Your task to perform on an android device: empty trash in google photos Image 0: 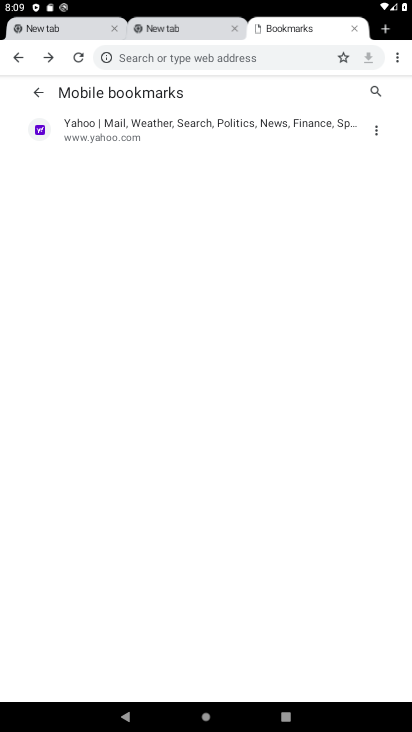
Step 0: press home button
Your task to perform on an android device: empty trash in google photos Image 1: 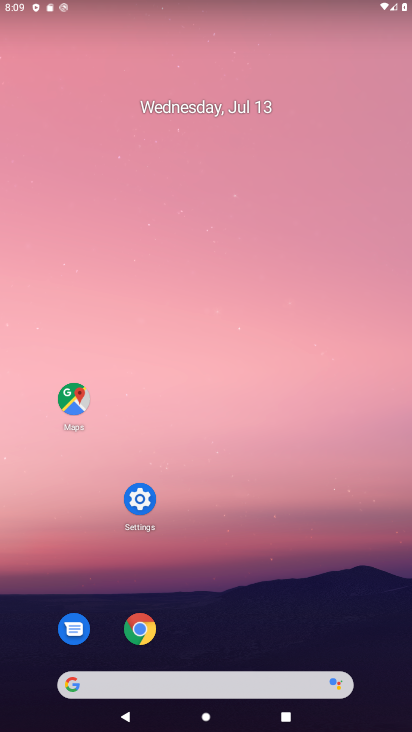
Step 1: drag from (392, 695) to (268, 51)
Your task to perform on an android device: empty trash in google photos Image 2: 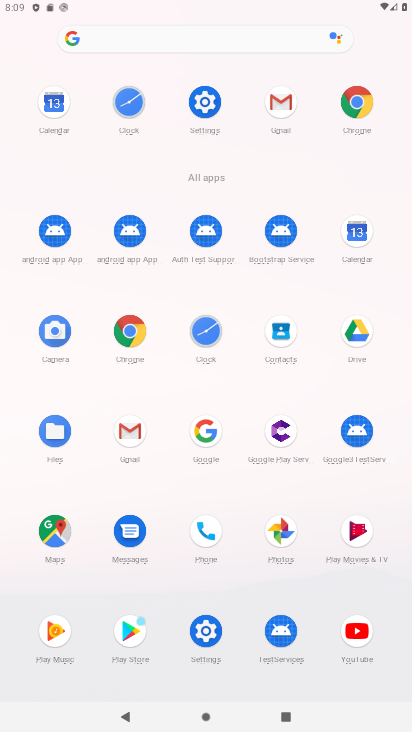
Step 2: click (272, 530)
Your task to perform on an android device: empty trash in google photos Image 3: 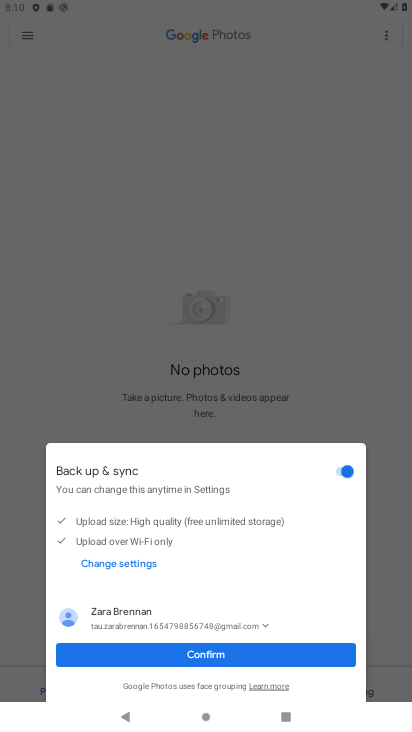
Step 3: press home button
Your task to perform on an android device: empty trash in google photos Image 4: 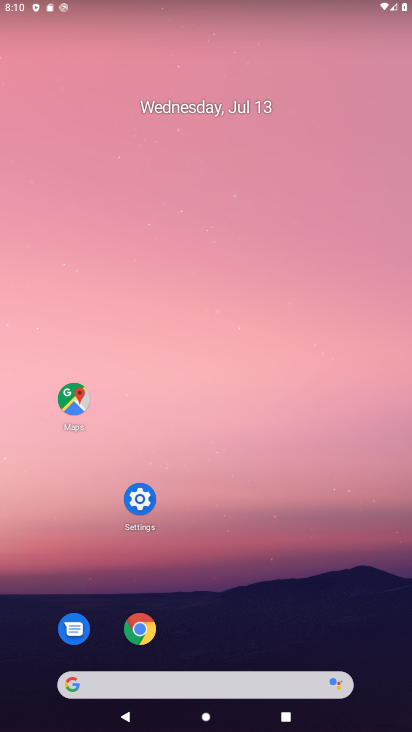
Step 4: drag from (385, 625) to (231, 77)
Your task to perform on an android device: empty trash in google photos Image 5: 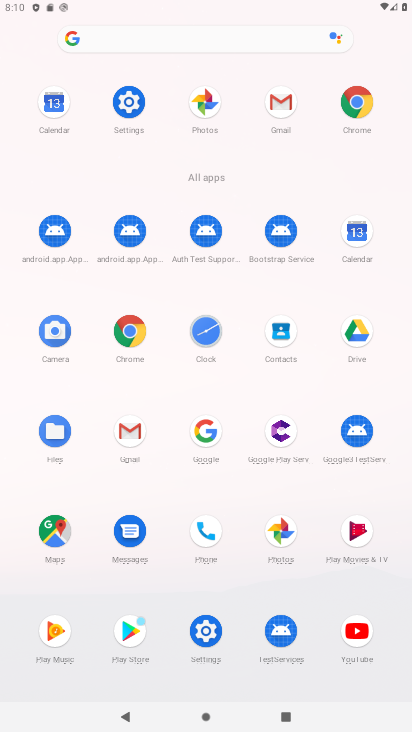
Step 5: drag from (279, 523) to (218, 375)
Your task to perform on an android device: empty trash in google photos Image 6: 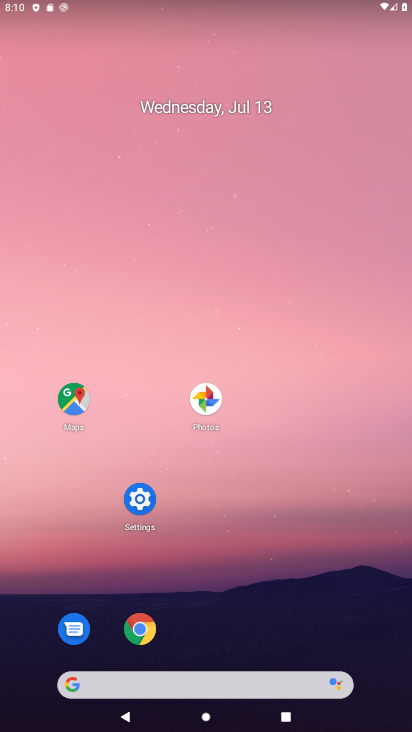
Step 6: click (201, 385)
Your task to perform on an android device: empty trash in google photos Image 7: 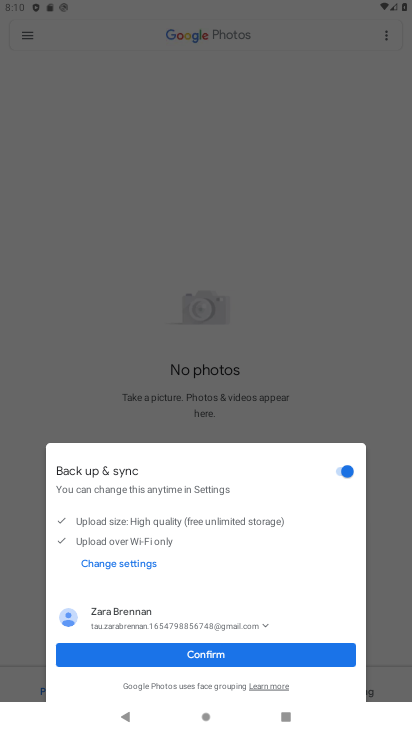
Step 7: click (222, 652)
Your task to perform on an android device: empty trash in google photos Image 8: 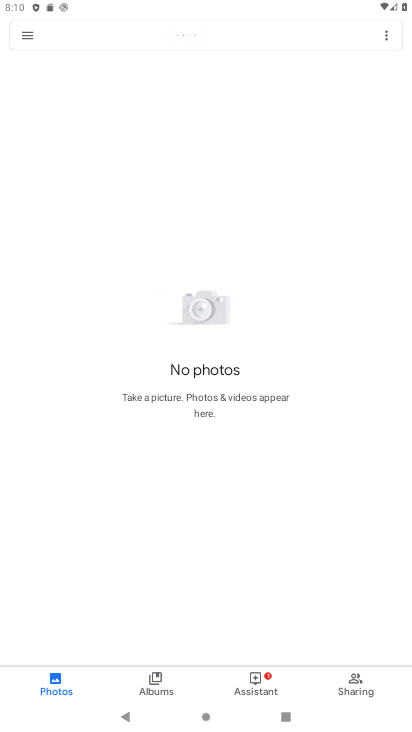
Step 8: click (28, 31)
Your task to perform on an android device: empty trash in google photos Image 9: 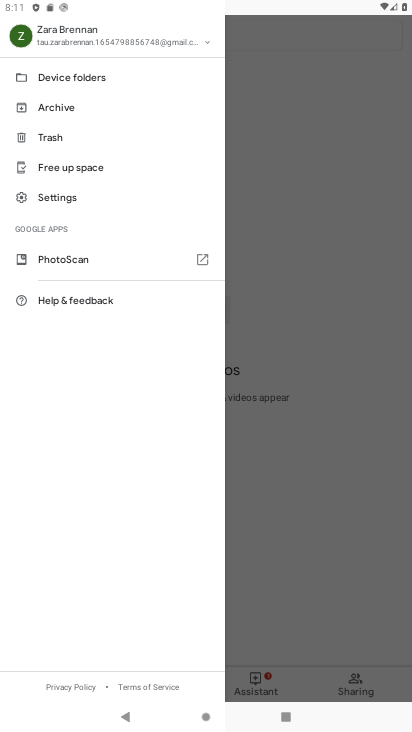
Step 9: click (54, 137)
Your task to perform on an android device: empty trash in google photos Image 10: 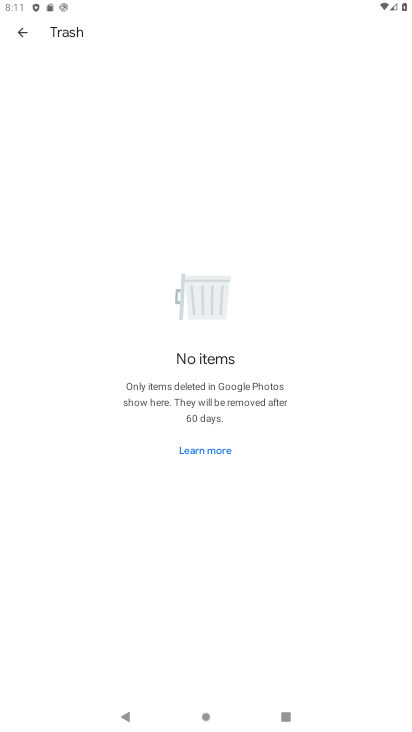
Step 10: task complete